Your task to perform on an android device: Open the calendar app, open the side menu, and click the "Day" option Image 0: 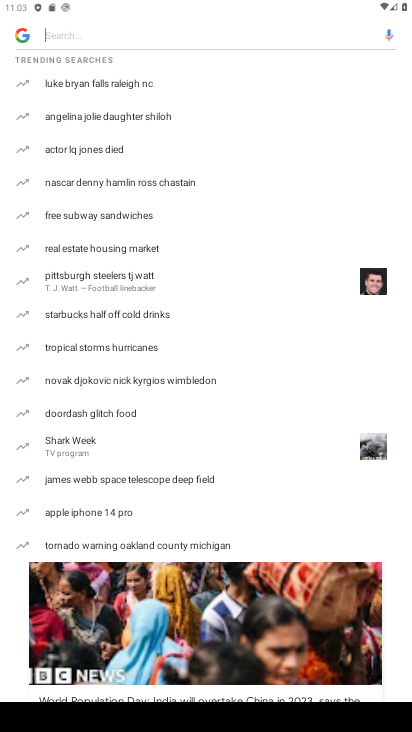
Step 0: press home button
Your task to perform on an android device: Open the calendar app, open the side menu, and click the "Day" option Image 1: 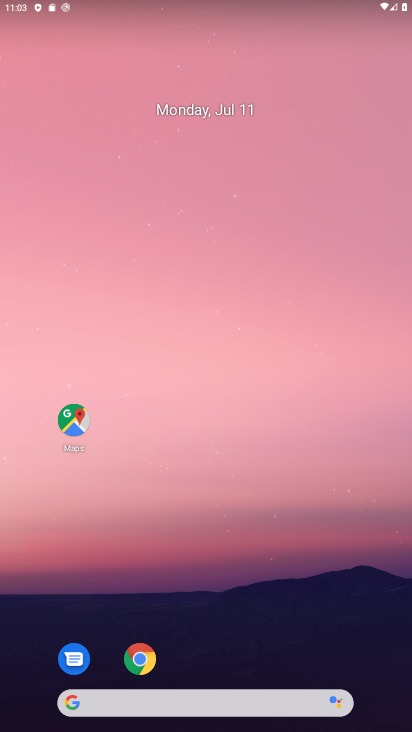
Step 1: drag from (255, 553) to (299, 81)
Your task to perform on an android device: Open the calendar app, open the side menu, and click the "Day" option Image 2: 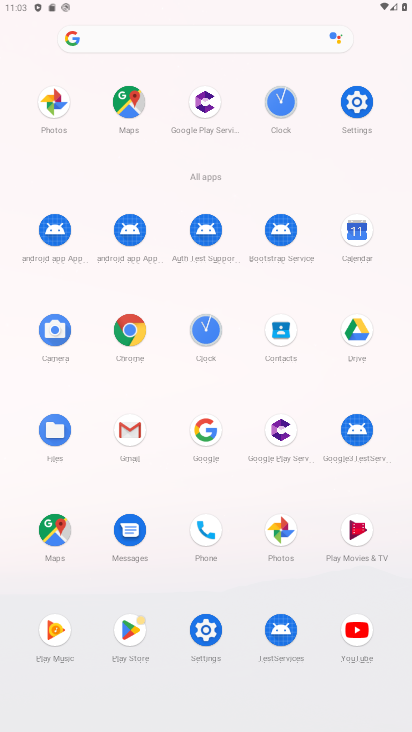
Step 2: click (355, 229)
Your task to perform on an android device: Open the calendar app, open the side menu, and click the "Day" option Image 3: 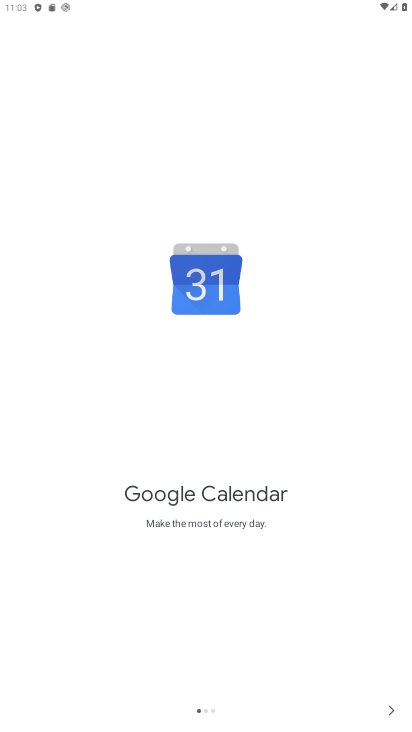
Step 3: click (392, 710)
Your task to perform on an android device: Open the calendar app, open the side menu, and click the "Day" option Image 4: 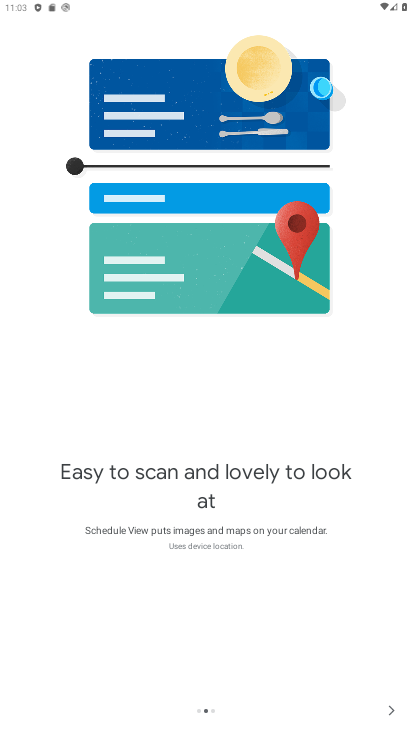
Step 4: click (395, 700)
Your task to perform on an android device: Open the calendar app, open the side menu, and click the "Day" option Image 5: 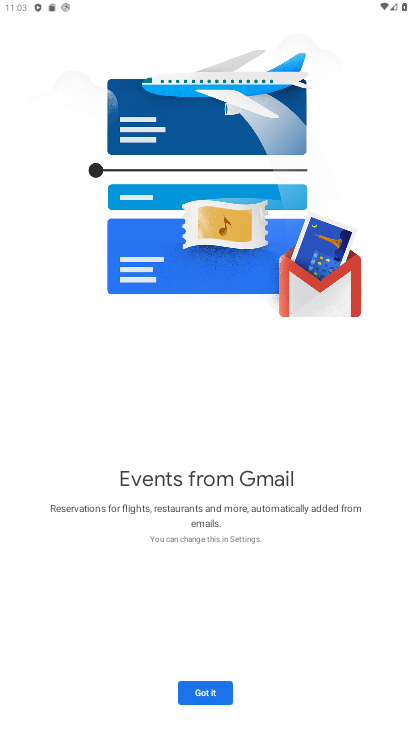
Step 5: click (223, 689)
Your task to perform on an android device: Open the calendar app, open the side menu, and click the "Day" option Image 6: 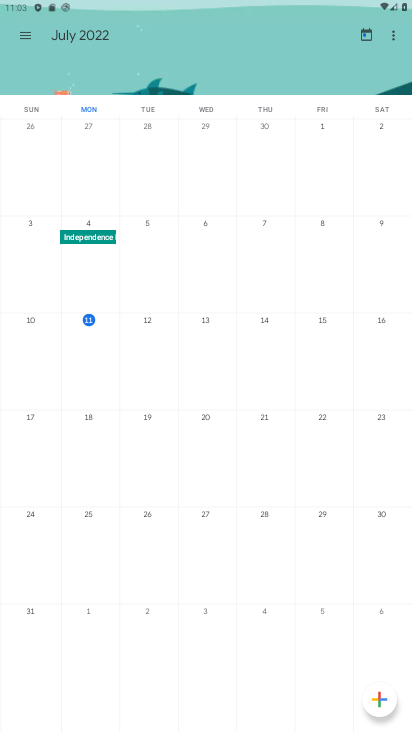
Step 6: click (35, 30)
Your task to perform on an android device: Open the calendar app, open the side menu, and click the "Day" option Image 7: 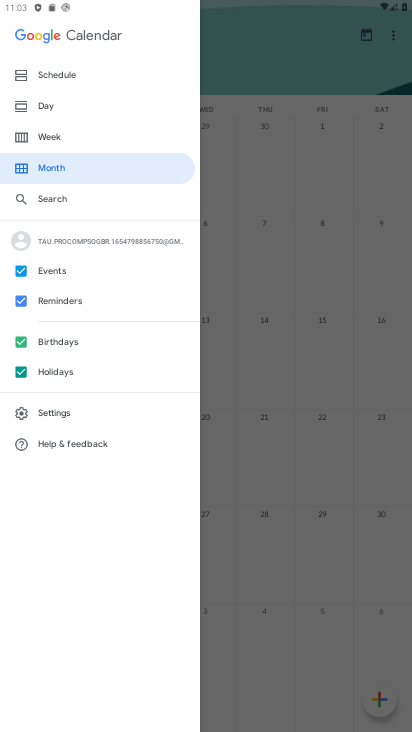
Step 7: click (33, 100)
Your task to perform on an android device: Open the calendar app, open the side menu, and click the "Day" option Image 8: 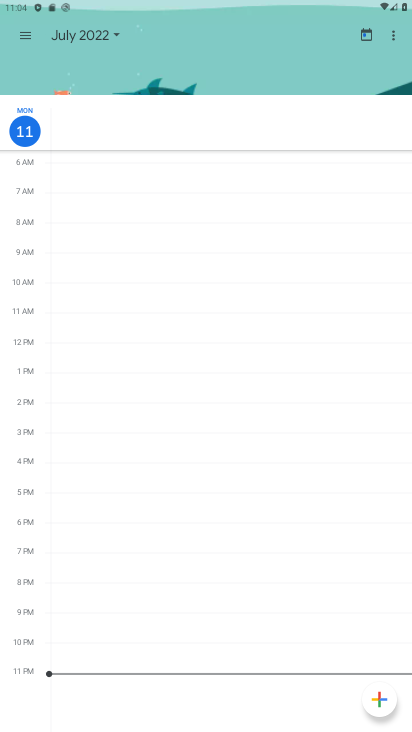
Step 8: task complete